Your task to perform on an android device: change the clock display to digital Image 0: 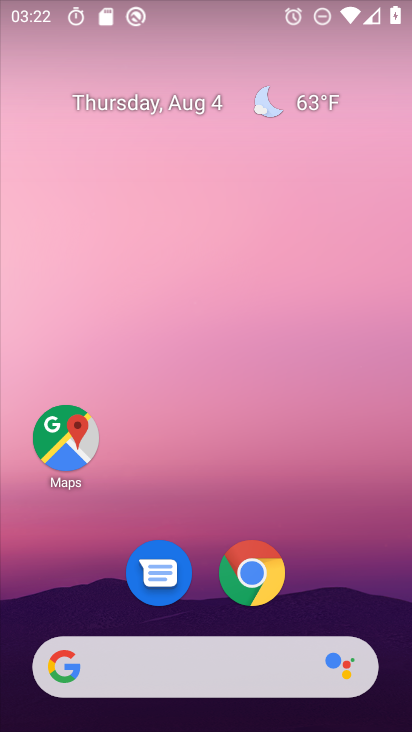
Step 0: drag from (348, 563) to (310, 118)
Your task to perform on an android device: change the clock display to digital Image 1: 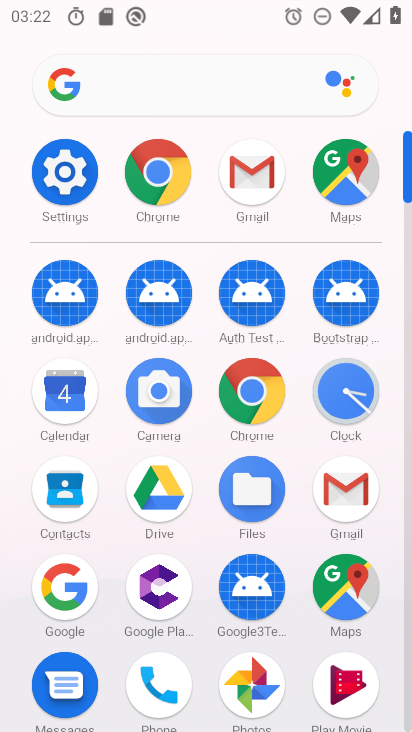
Step 1: click (348, 415)
Your task to perform on an android device: change the clock display to digital Image 2: 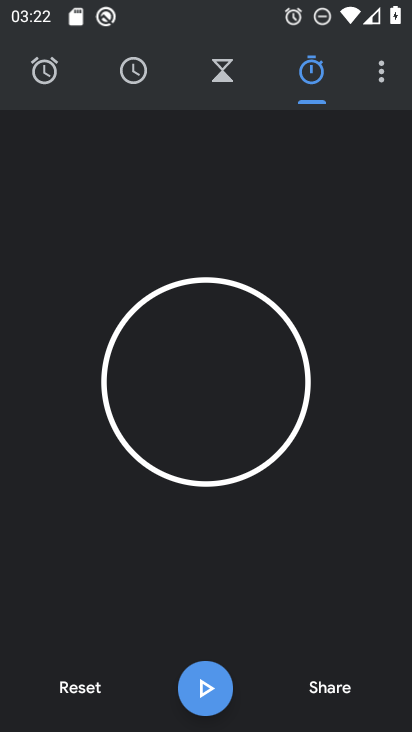
Step 2: click (382, 68)
Your task to perform on an android device: change the clock display to digital Image 3: 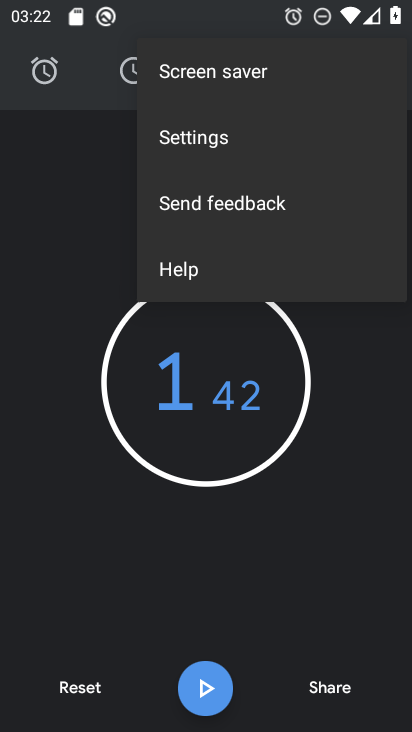
Step 3: click (222, 140)
Your task to perform on an android device: change the clock display to digital Image 4: 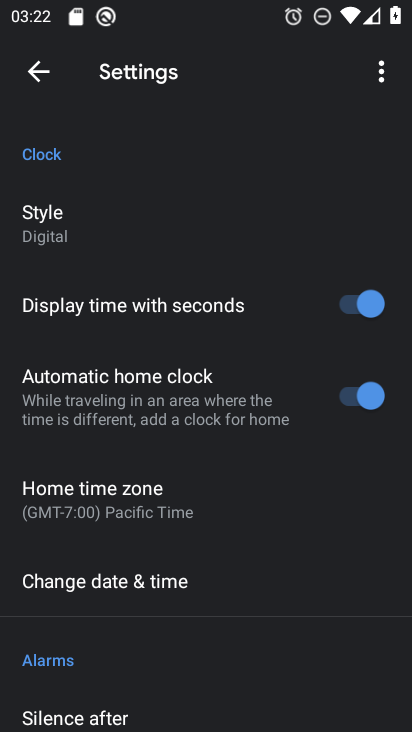
Step 4: task complete